Your task to perform on an android device: Open calendar and show me the first week of next month Image 0: 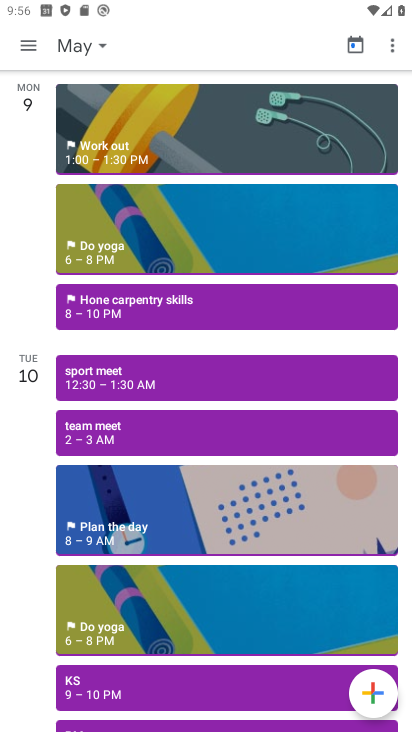
Step 0: click (77, 46)
Your task to perform on an android device: Open calendar and show me the first week of next month Image 1: 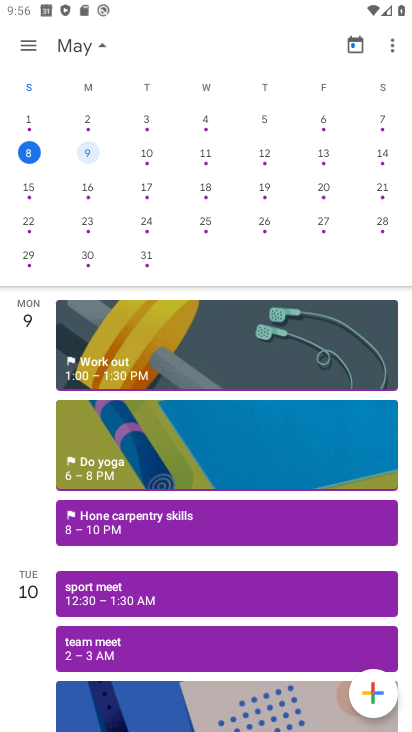
Step 1: drag from (360, 191) to (122, 194)
Your task to perform on an android device: Open calendar and show me the first week of next month Image 2: 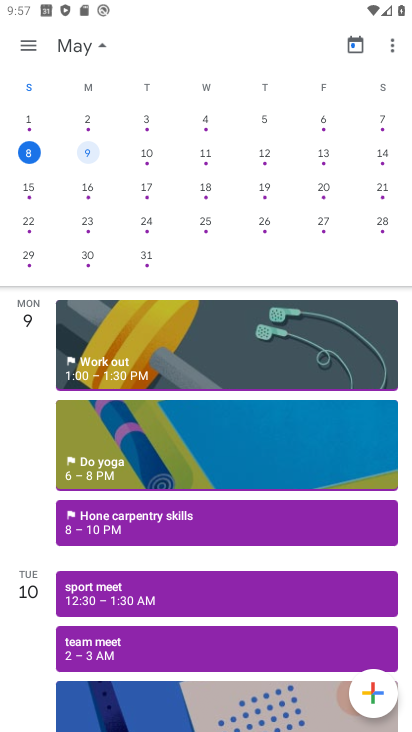
Step 2: drag from (360, 161) to (4, 123)
Your task to perform on an android device: Open calendar and show me the first week of next month Image 3: 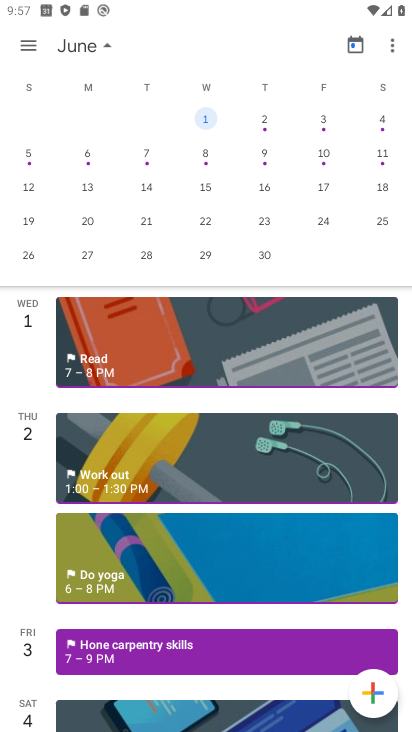
Step 3: click (86, 153)
Your task to perform on an android device: Open calendar and show me the first week of next month Image 4: 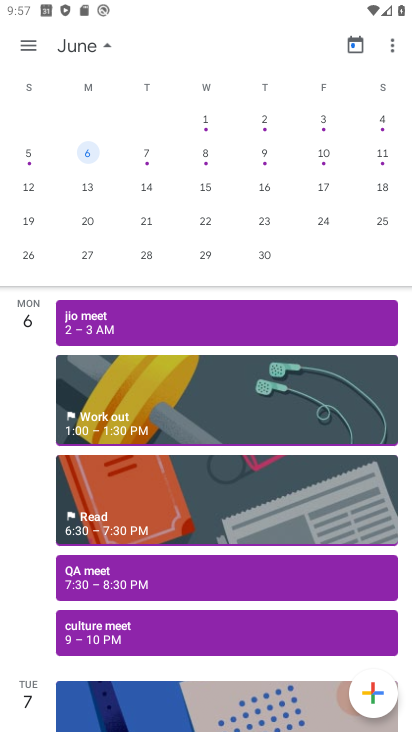
Step 4: click (25, 44)
Your task to perform on an android device: Open calendar and show me the first week of next month Image 5: 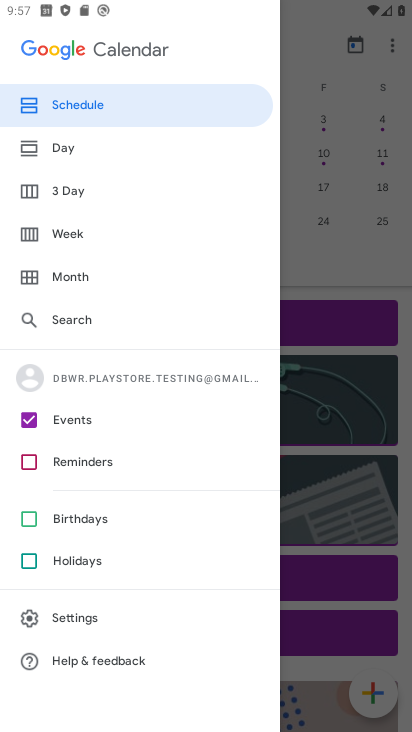
Step 5: click (70, 229)
Your task to perform on an android device: Open calendar and show me the first week of next month Image 6: 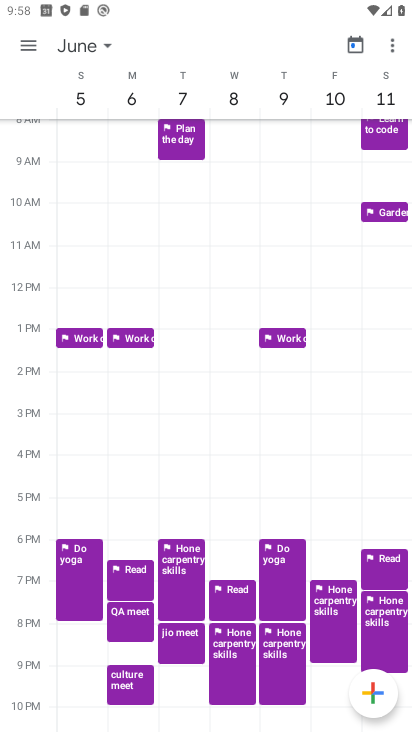
Step 6: task complete